Your task to perform on an android device: toggle improve location accuracy Image 0: 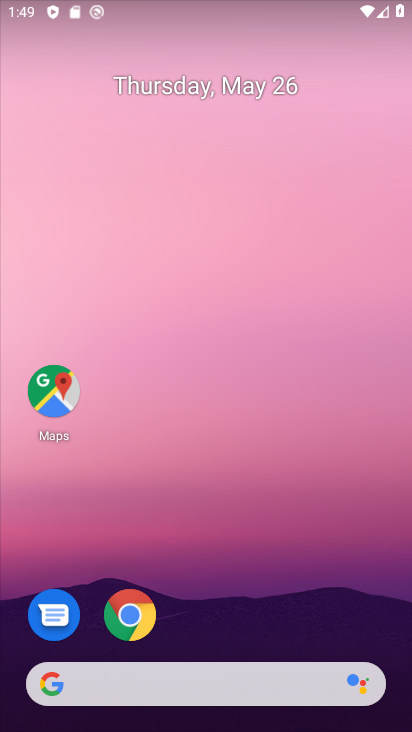
Step 0: drag from (218, 637) to (295, 73)
Your task to perform on an android device: toggle improve location accuracy Image 1: 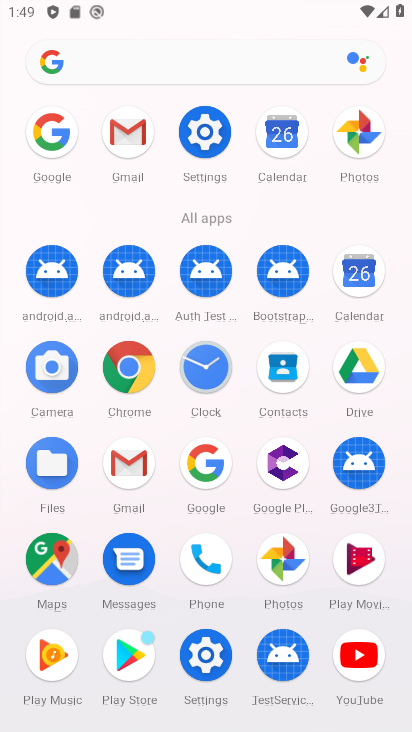
Step 1: click (208, 128)
Your task to perform on an android device: toggle improve location accuracy Image 2: 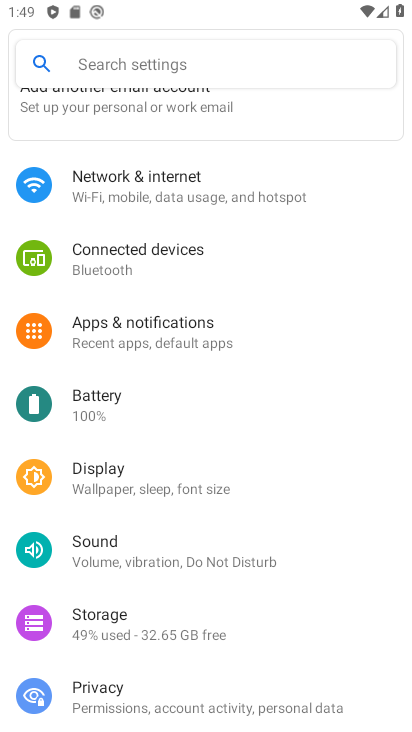
Step 2: drag from (155, 672) to (190, 116)
Your task to perform on an android device: toggle improve location accuracy Image 3: 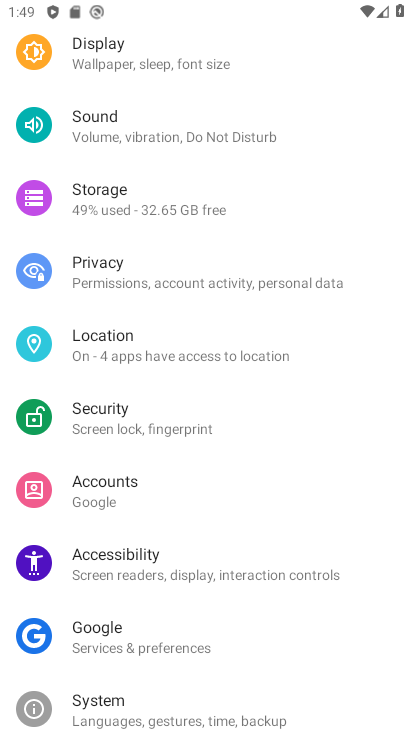
Step 3: click (143, 334)
Your task to perform on an android device: toggle improve location accuracy Image 4: 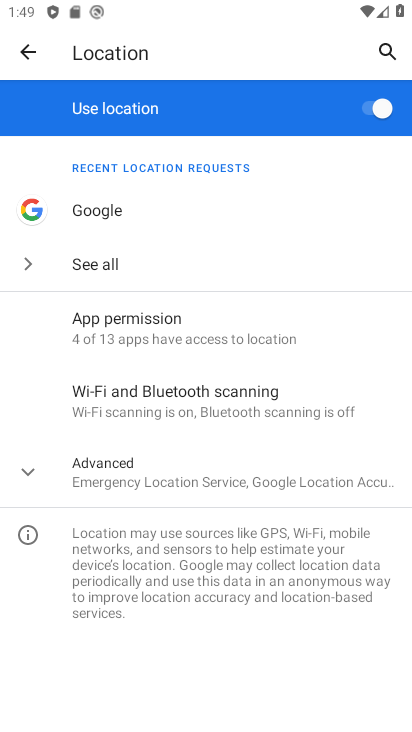
Step 4: click (27, 461)
Your task to perform on an android device: toggle improve location accuracy Image 5: 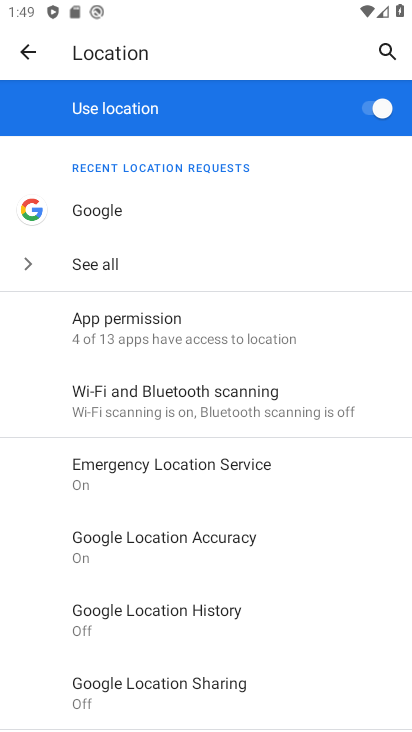
Step 5: click (62, 536)
Your task to perform on an android device: toggle improve location accuracy Image 6: 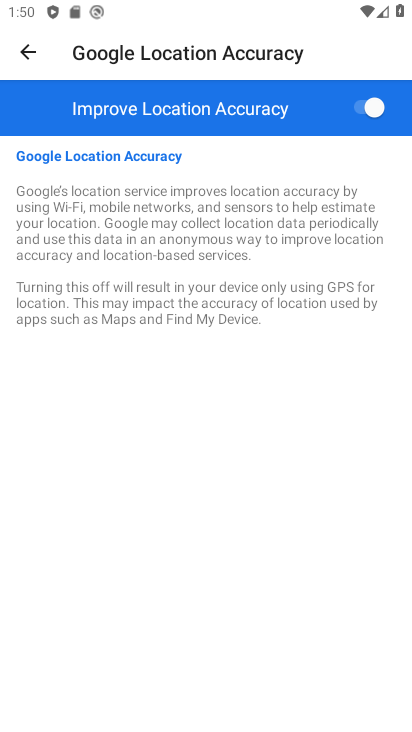
Step 6: click (361, 109)
Your task to perform on an android device: toggle improve location accuracy Image 7: 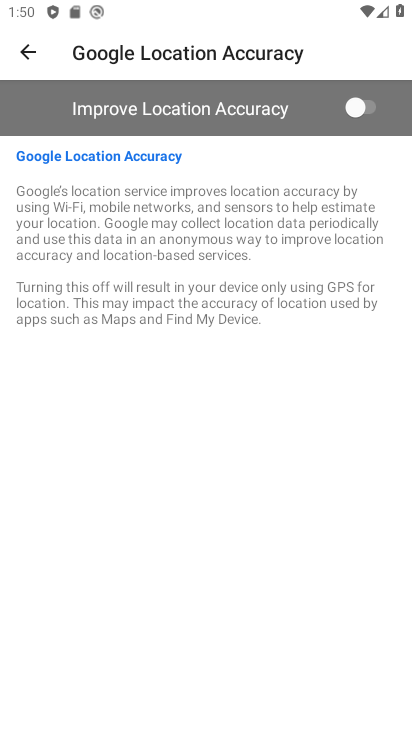
Step 7: task complete